Your task to perform on an android device: Open the stopwatch Image 0: 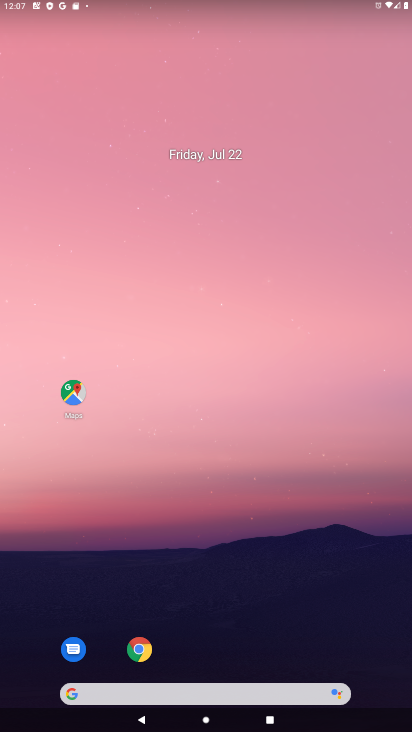
Step 0: drag from (270, 597) to (264, 70)
Your task to perform on an android device: Open the stopwatch Image 1: 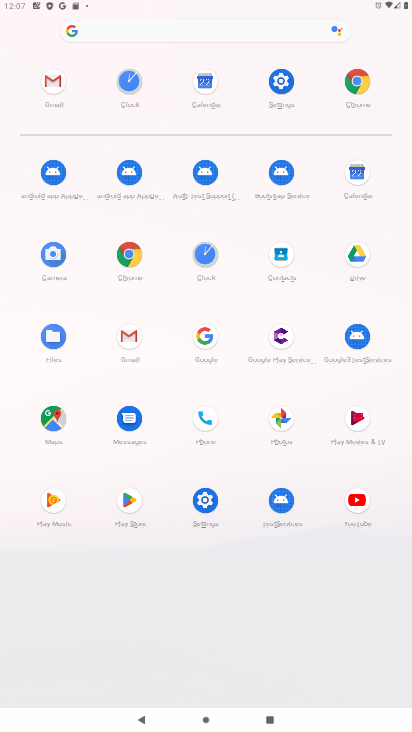
Step 1: click (203, 266)
Your task to perform on an android device: Open the stopwatch Image 2: 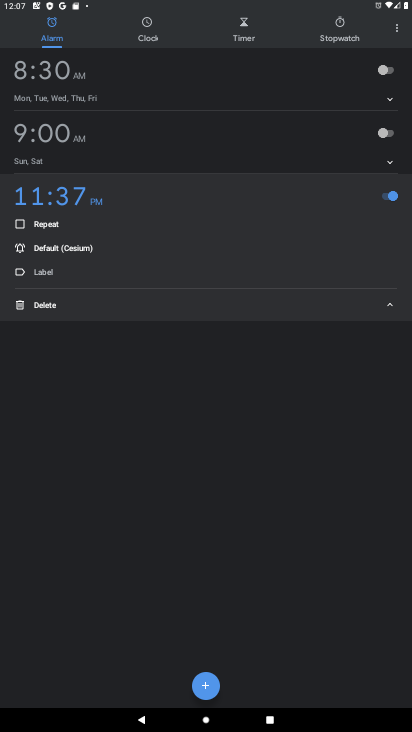
Step 2: click (335, 22)
Your task to perform on an android device: Open the stopwatch Image 3: 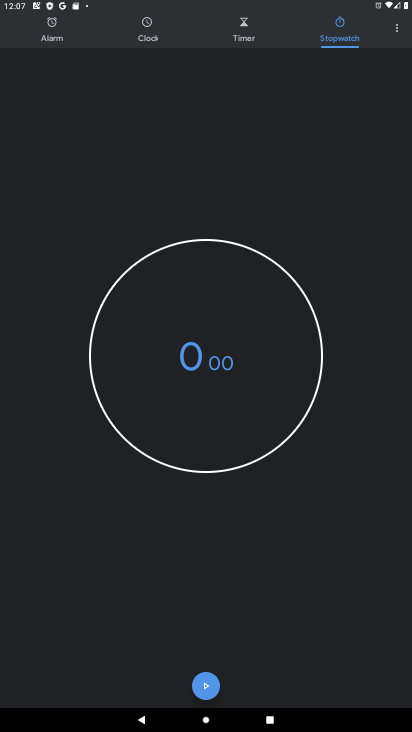
Step 3: task complete